Your task to perform on an android device: Open Google Chrome and open the bookmarks view Image 0: 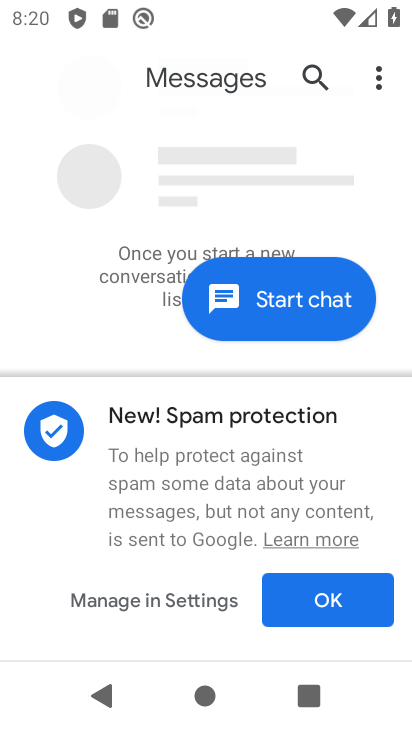
Step 0: press home button
Your task to perform on an android device: Open Google Chrome and open the bookmarks view Image 1: 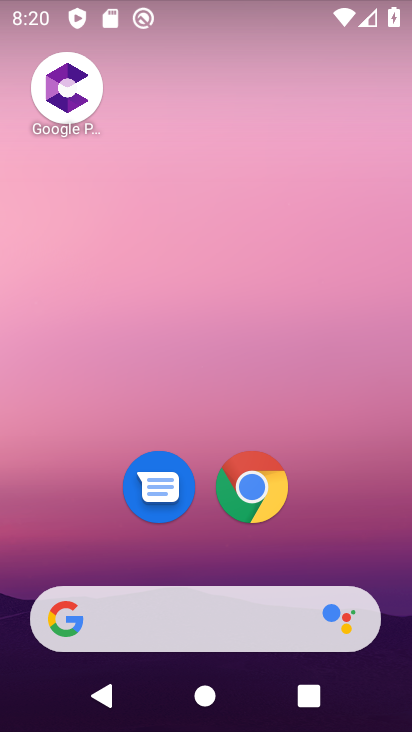
Step 1: click (246, 508)
Your task to perform on an android device: Open Google Chrome and open the bookmarks view Image 2: 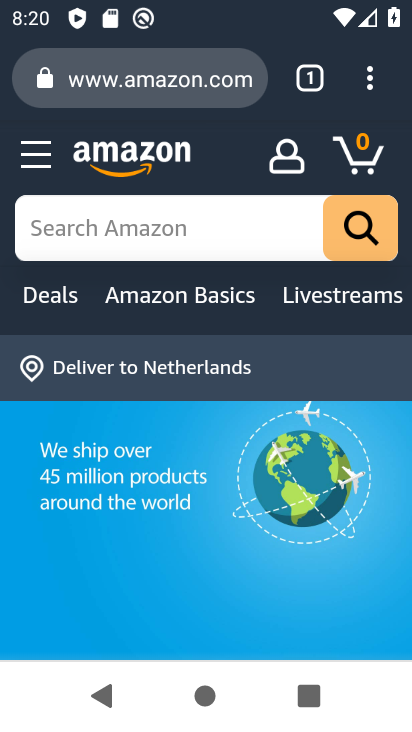
Step 2: click (373, 86)
Your task to perform on an android device: Open Google Chrome and open the bookmarks view Image 3: 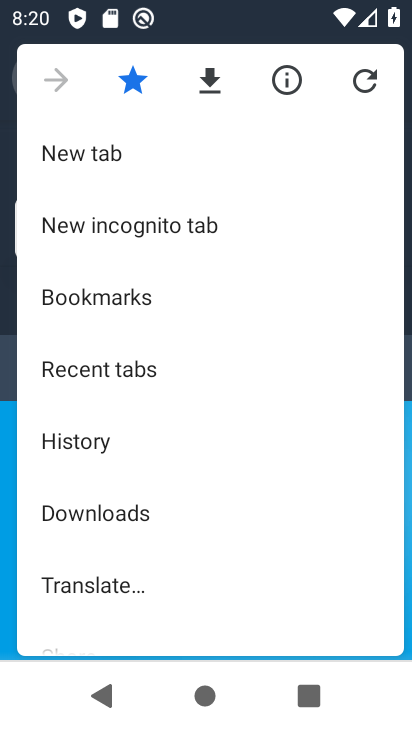
Step 3: click (108, 298)
Your task to perform on an android device: Open Google Chrome and open the bookmarks view Image 4: 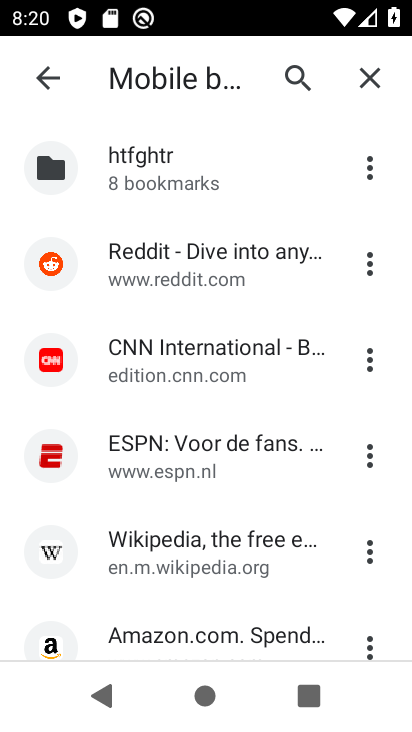
Step 4: task complete